Your task to perform on an android device: change keyboard looks Image 0: 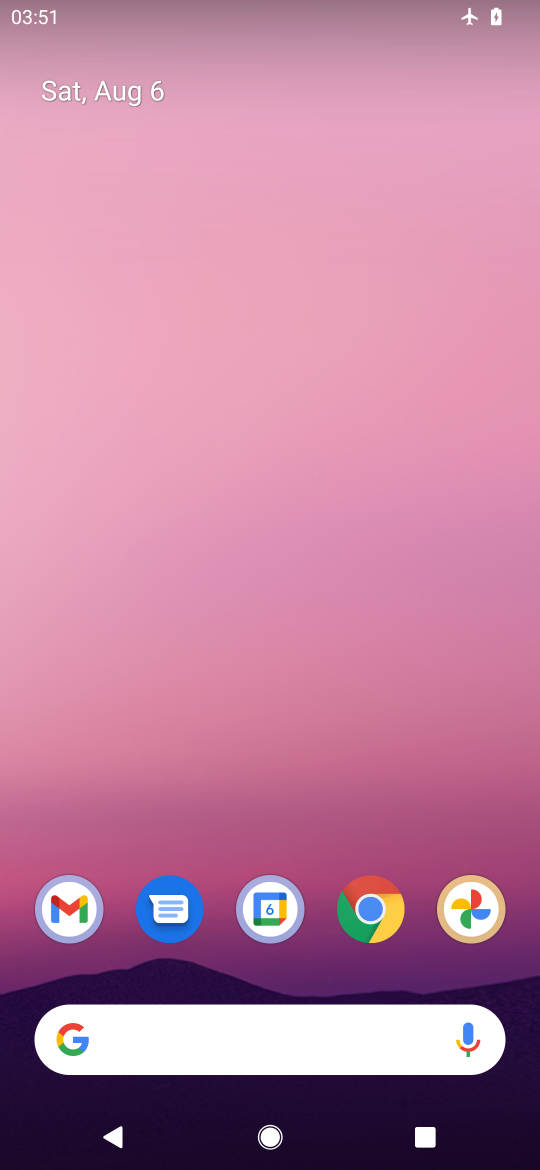
Step 0: drag from (252, 877) to (434, 0)
Your task to perform on an android device: change keyboard looks Image 1: 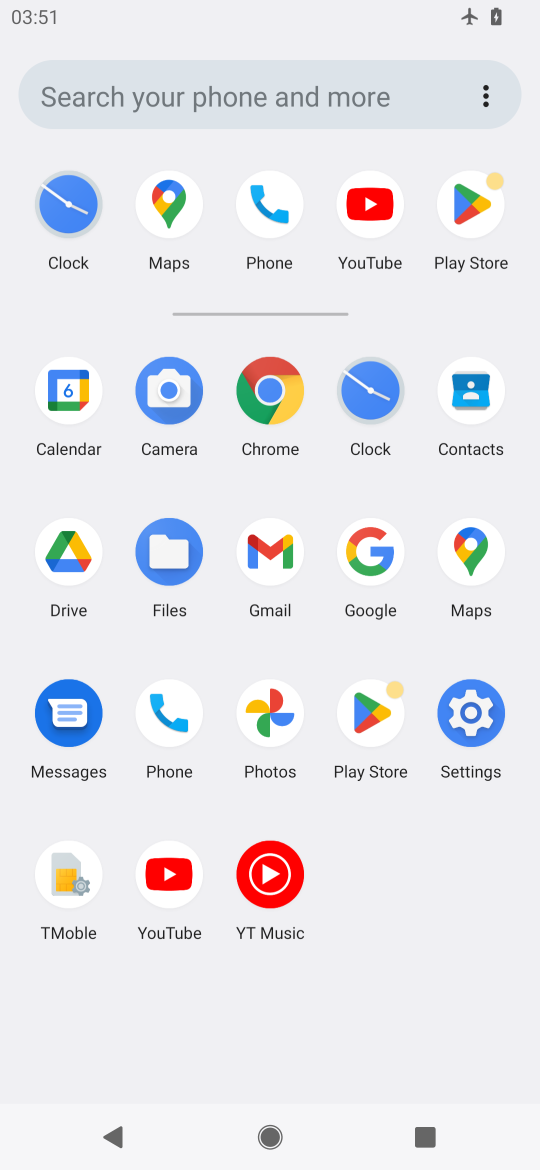
Step 1: click (472, 711)
Your task to perform on an android device: change keyboard looks Image 2: 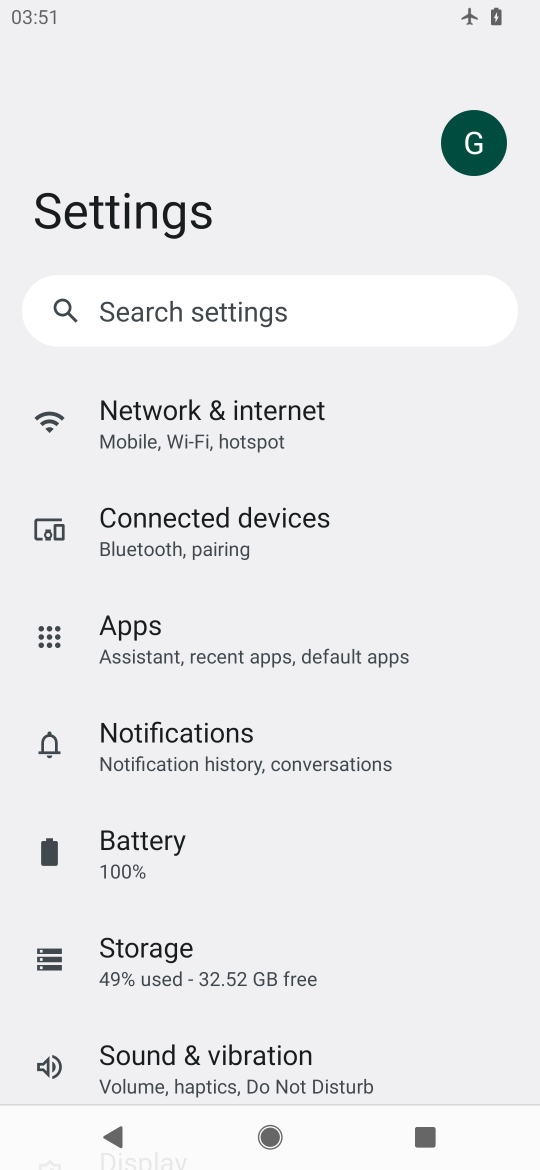
Step 2: drag from (232, 1084) to (249, 58)
Your task to perform on an android device: change keyboard looks Image 3: 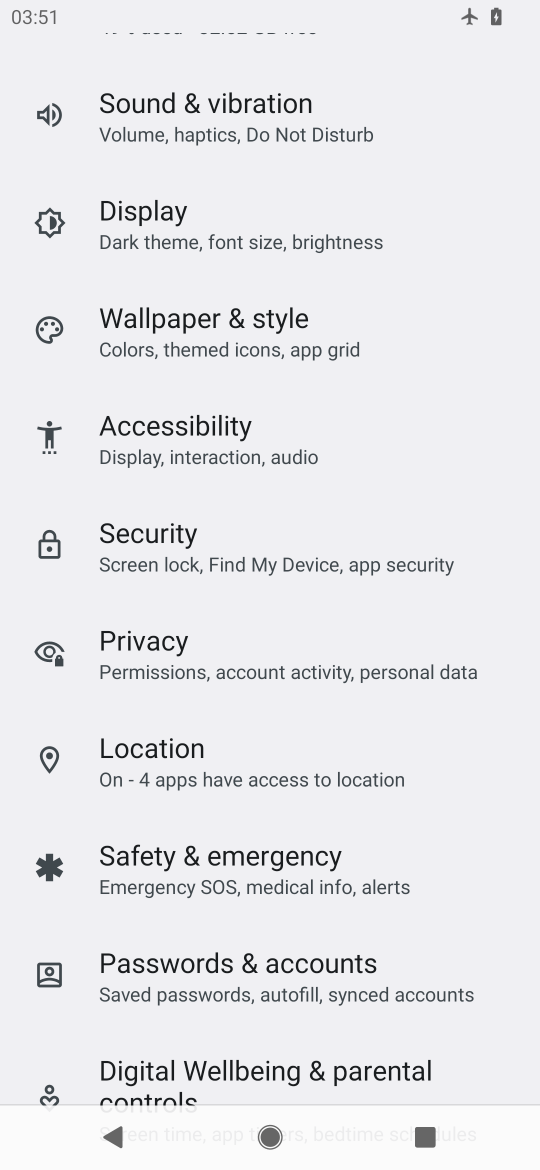
Step 3: drag from (174, 1019) to (323, 11)
Your task to perform on an android device: change keyboard looks Image 4: 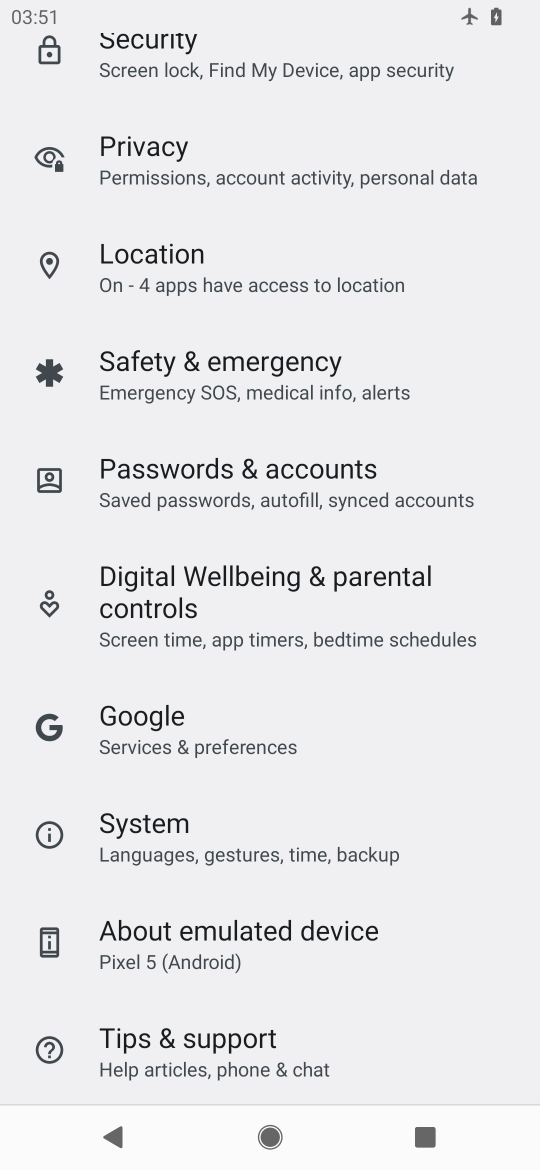
Step 4: click (195, 872)
Your task to perform on an android device: change keyboard looks Image 5: 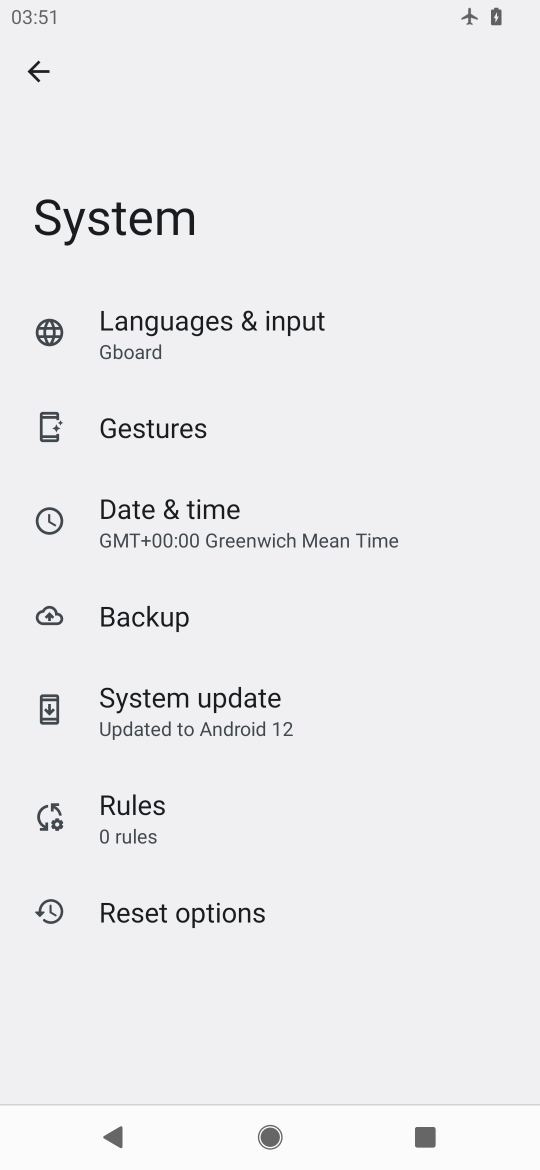
Step 5: click (214, 323)
Your task to perform on an android device: change keyboard looks Image 6: 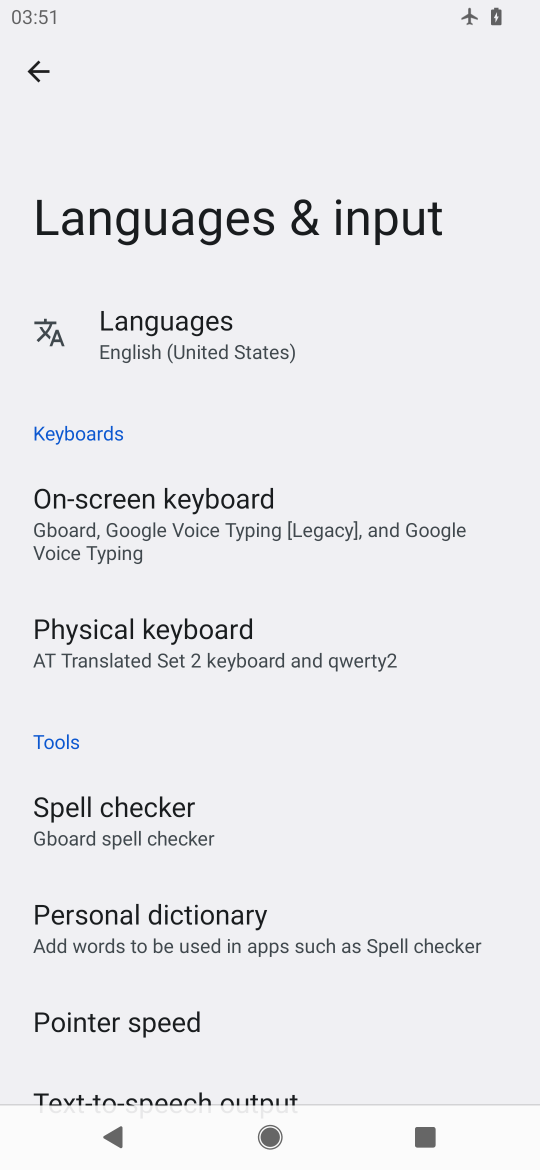
Step 6: click (146, 505)
Your task to perform on an android device: change keyboard looks Image 7: 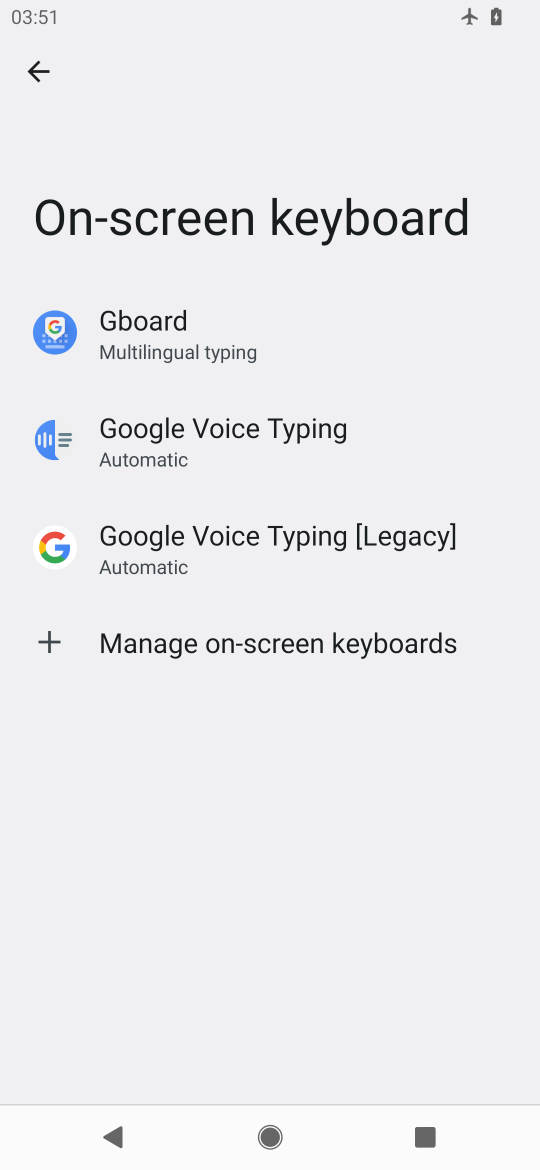
Step 7: click (242, 319)
Your task to perform on an android device: change keyboard looks Image 8: 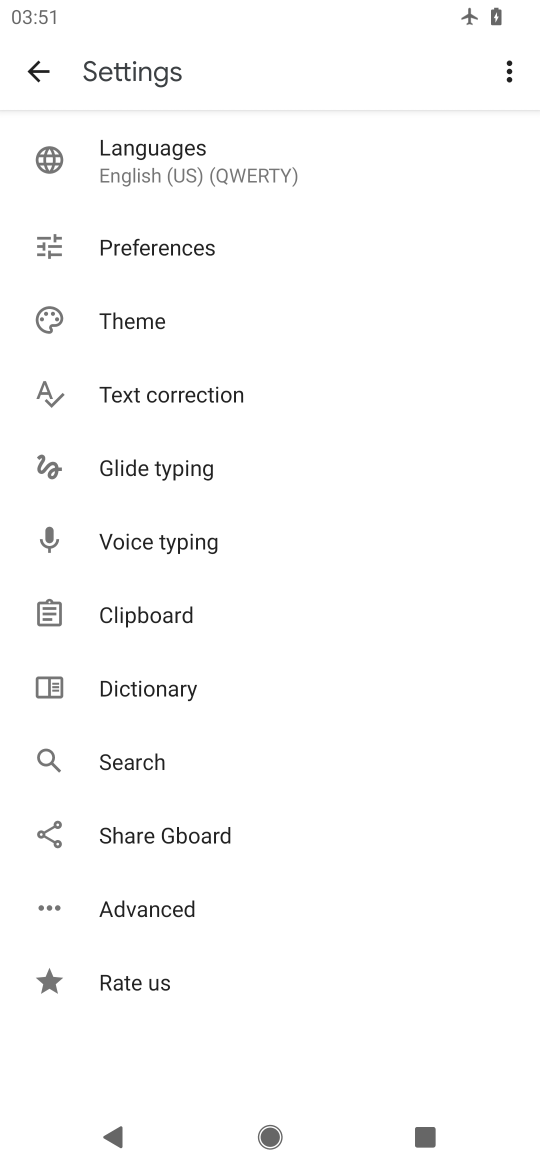
Step 8: click (116, 325)
Your task to perform on an android device: change keyboard looks Image 9: 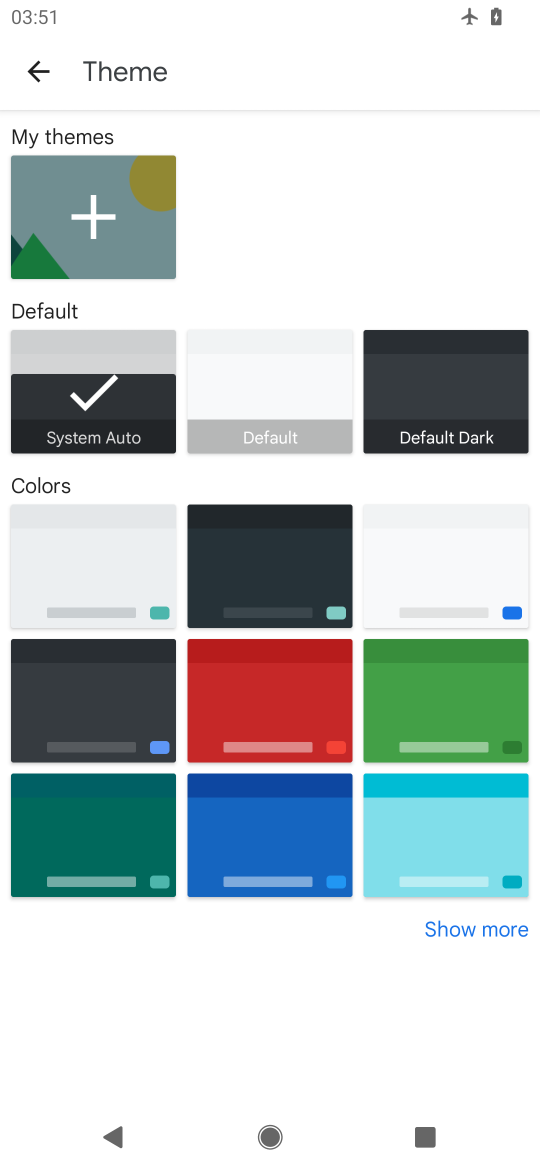
Step 9: click (313, 708)
Your task to perform on an android device: change keyboard looks Image 10: 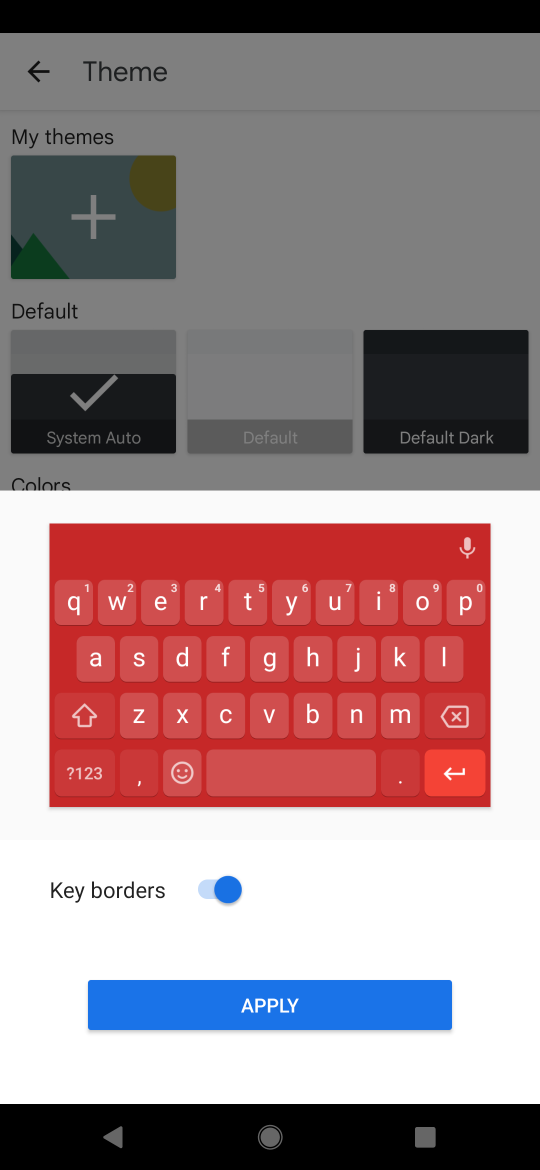
Step 10: click (247, 1020)
Your task to perform on an android device: change keyboard looks Image 11: 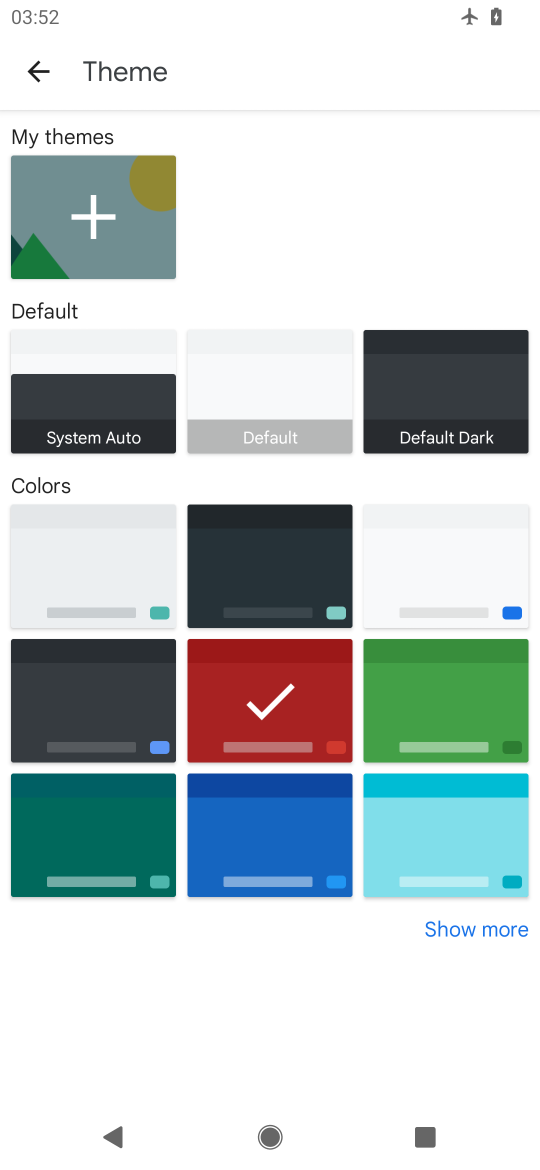
Step 11: task complete